Your task to perform on an android device: What's on my calendar today? Image 0: 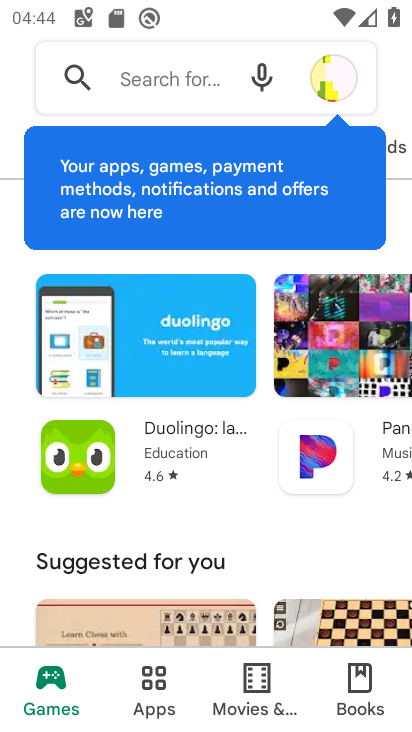
Step 0: press home button
Your task to perform on an android device: What's on my calendar today? Image 1: 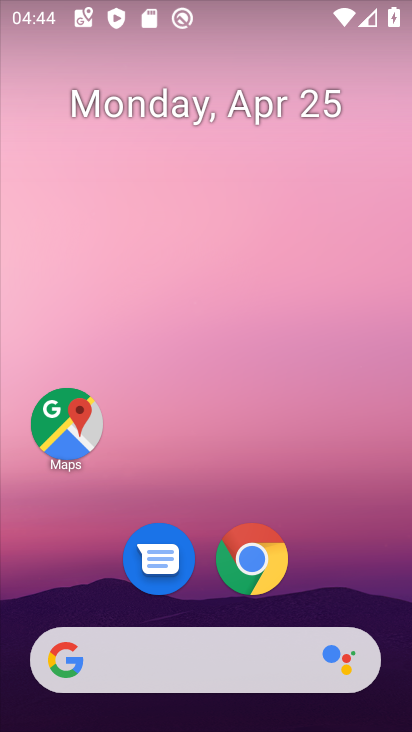
Step 1: click (76, 107)
Your task to perform on an android device: What's on my calendar today? Image 2: 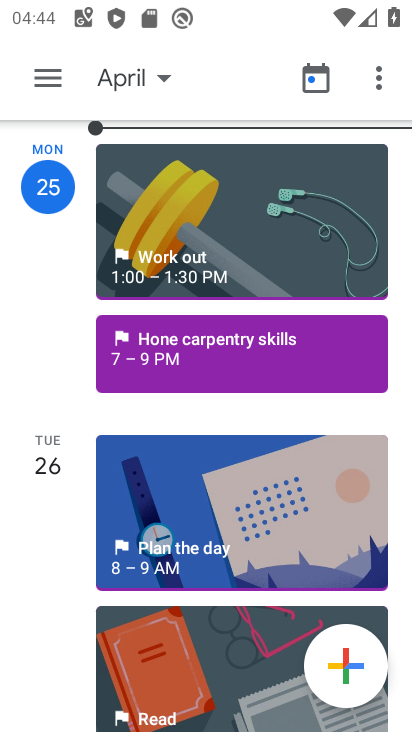
Step 2: task complete